Your task to perform on an android device: turn off location history Image 0: 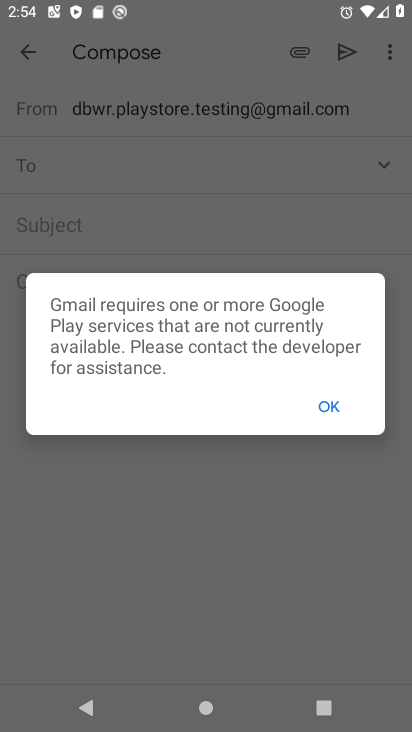
Step 0: click (351, 410)
Your task to perform on an android device: turn off location history Image 1: 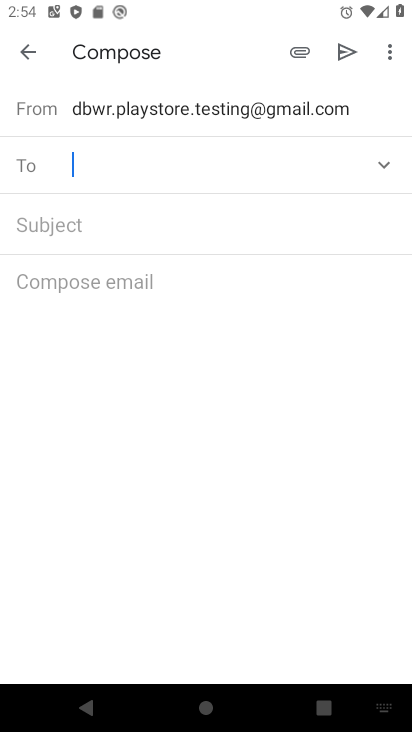
Step 1: press home button
Your task to perform on an android device: turn off location history Image 2: 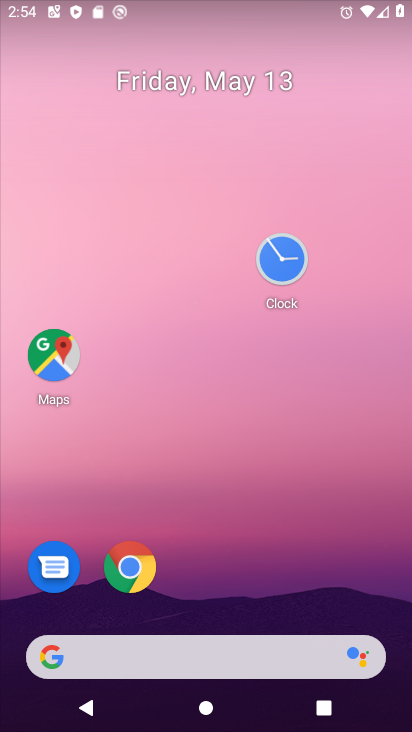
Step 2: drag from (251, 576) to (287, 117)
Your task to perform on an android device: turn off location history Image 3: 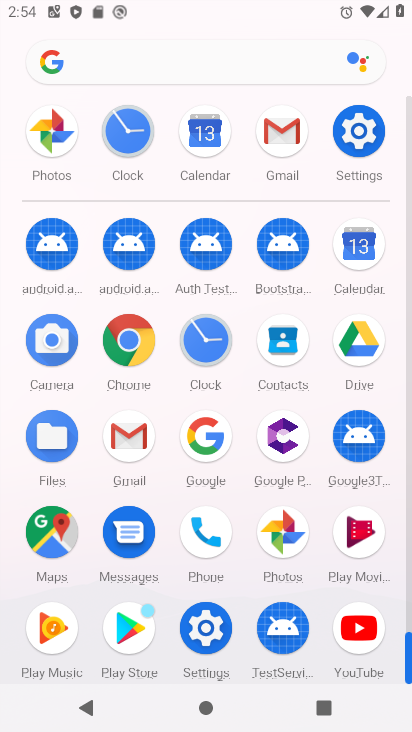
Step 3: click (350, 137)
Your task to perform on an android device: turn off location history Image 4: 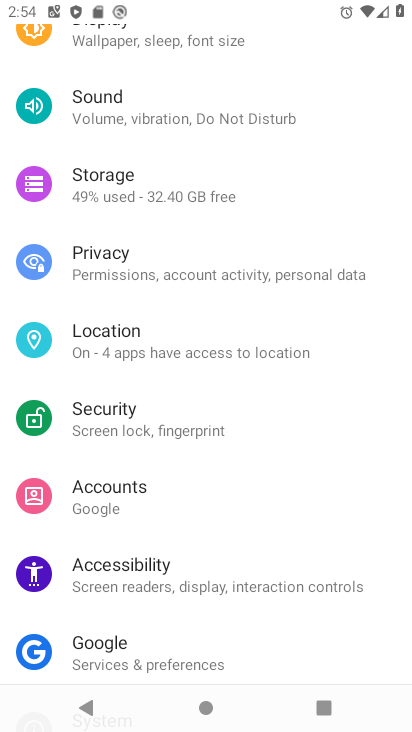
Step 4: drag from (238, 638) to (295, 104)
Your task to perform on an android device: turn off location history Image 5: 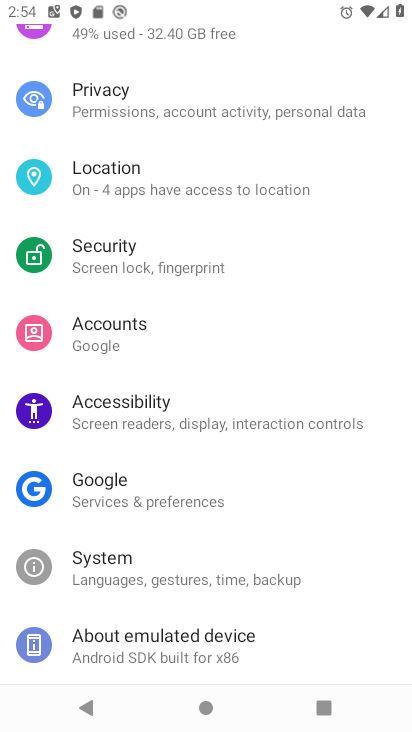
Step 5: click (208, 193)
Your task to perform on an android device: turn off location history Image 6: 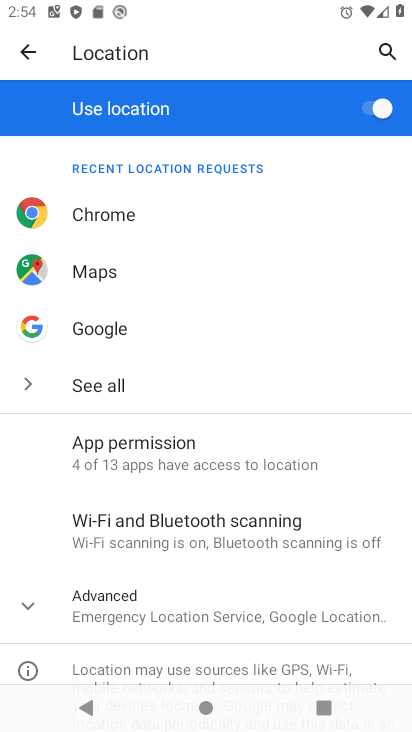
Step 6: drag from (185, 548) to (240, 229)
Your task to perform on an android device: turn off location history Image 7: 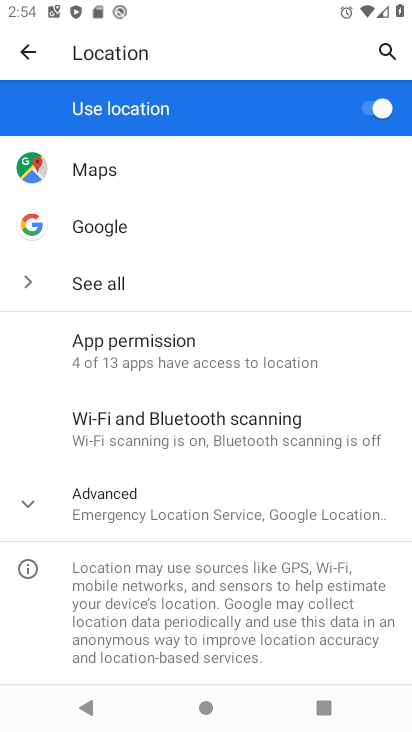
Step 7: click (212, 491)
Your task to perform on an android device: turn off location history Image 8: 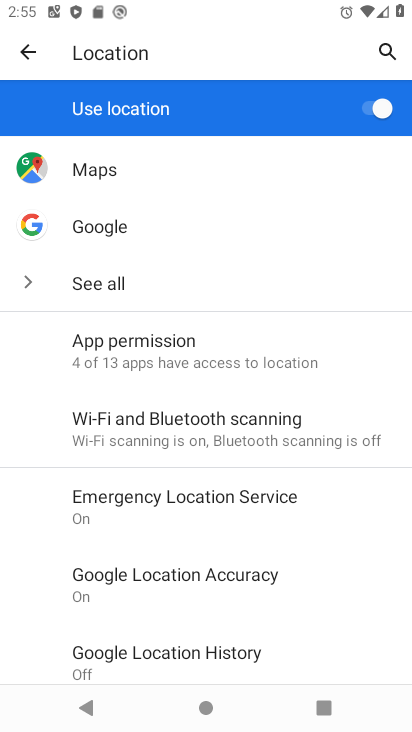
Step 8: click (198, 632)
Your task to perform on an android device: turn off location history Image 9: 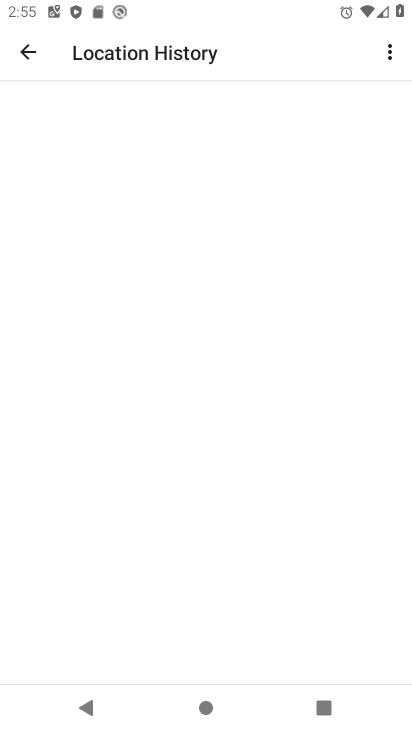
Step 9: task complete